Your task to perform on an android device: Open the stopwatch Image 0: 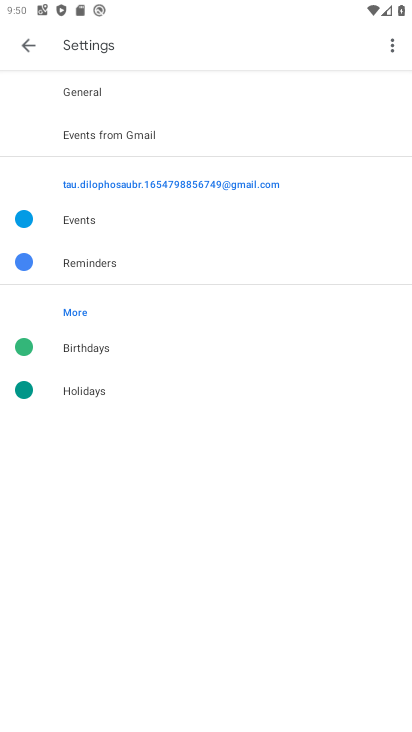
Step 0: press home button
Your task to perform on an android device: Open the stopwatch Image 1: 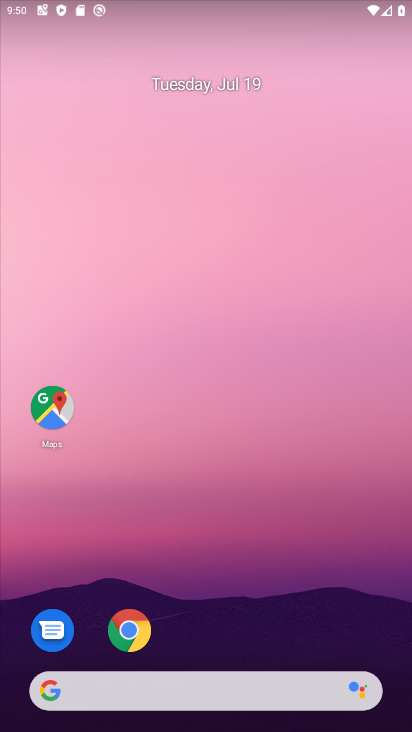
Step 1: drag from (171, 668) to (193, 312)
Your task to perform on an android device: Open the stopwatch Image 2: 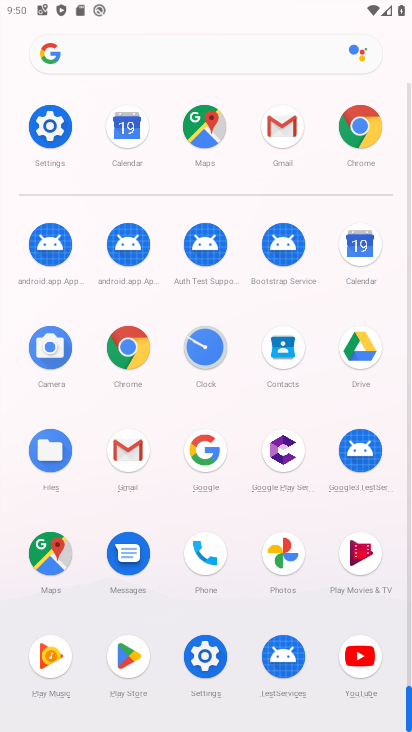
Step 2: click (217, 366)
Your task to perform on an android device: Open the stopwatch Image 3: 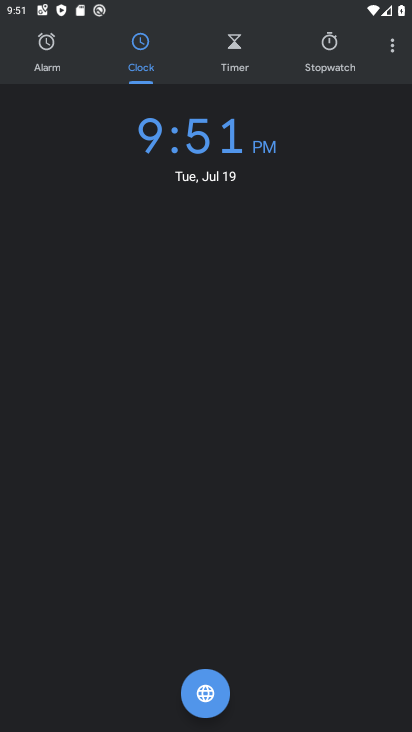
Step 3: click (330, 69)
Your task to perform on an android device: Open the stopwatch Image 4: 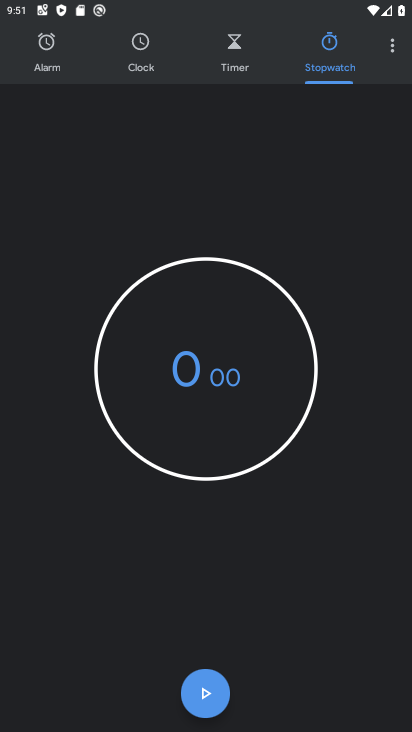
Step 4: task complete